Your task to perform on an android device: Add "dell alienware" to the cart on walmart Image 0: 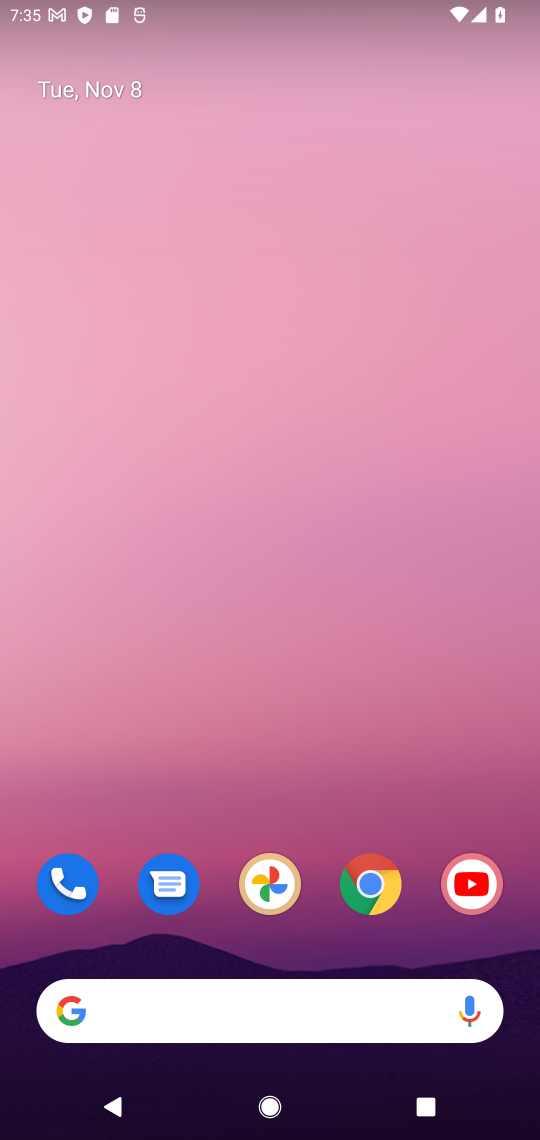
Step 0: drag from (355, 827) to (330, 73)
Your task to perform on an android device: Add "dell alienware" to the cart on walmart Image 1: 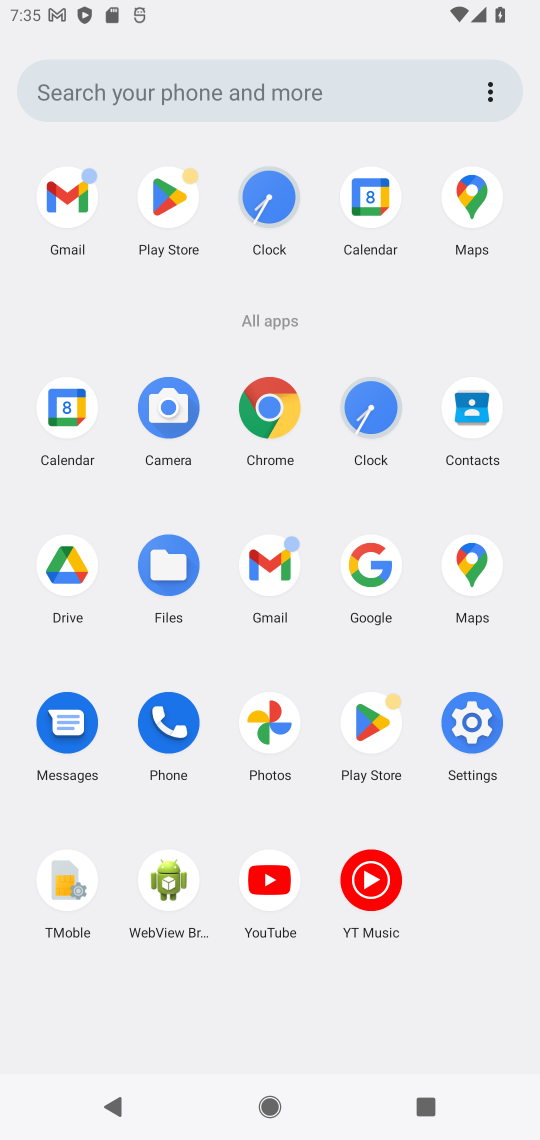
Step 1: click (367, 591)
Your task to perform on an android device: Add "dell alienware" to the cart on walmart Image 2: 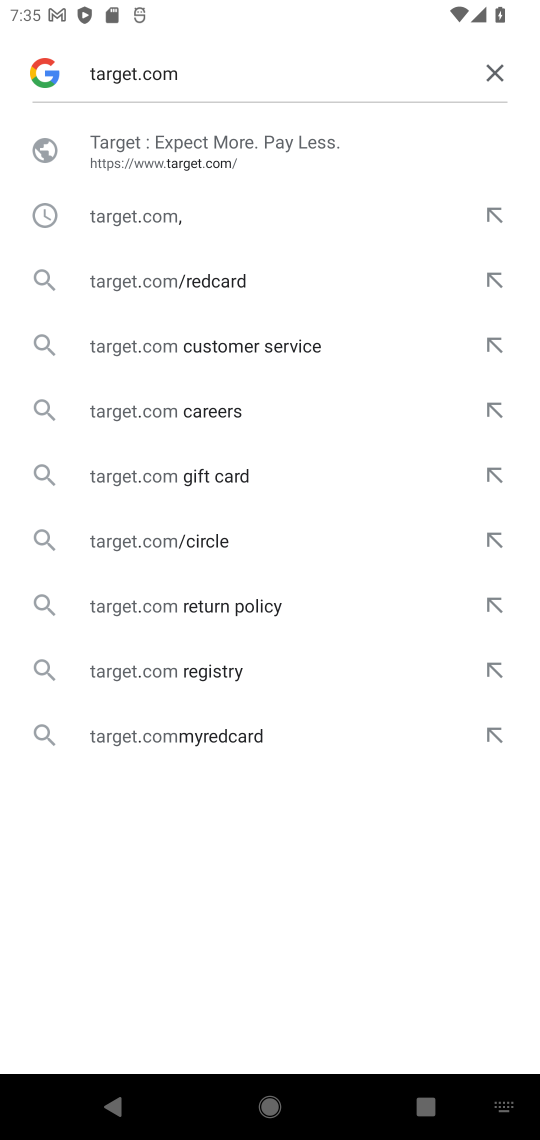
Step 2: click (505, 70)
Your task to perform on an android device: Add "dell alienware" to the cart on walmart Image 3: 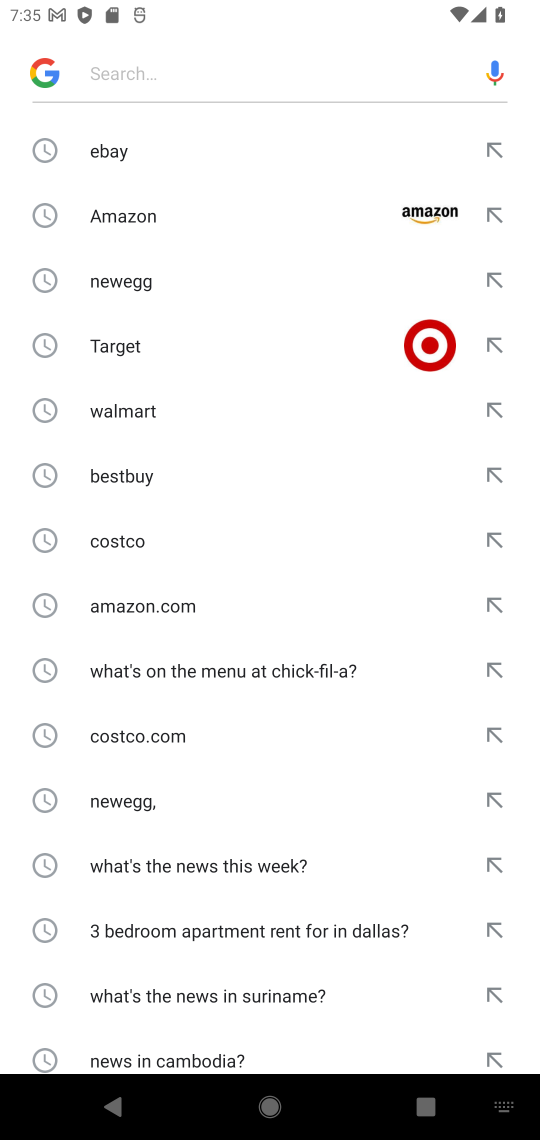
Step 3: click (234, 403)
Your task to perform on an android device: Add "dell alienware" to the cart on walmart Image 4: 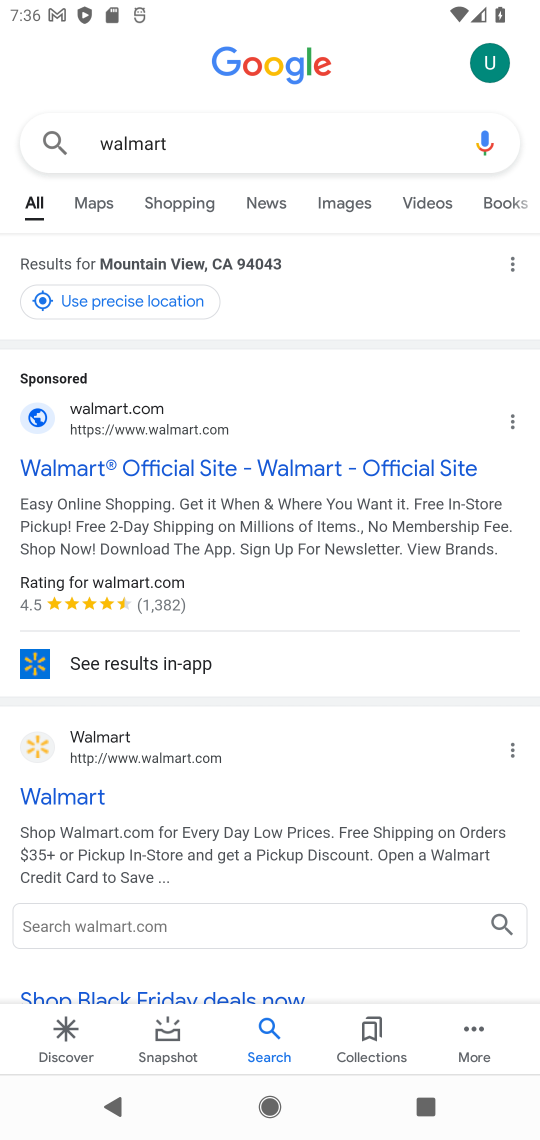
Step 4: click (138, 483)
Your task to perform on an android device: Add "dell alienware" to the cart on walmart Image 5: 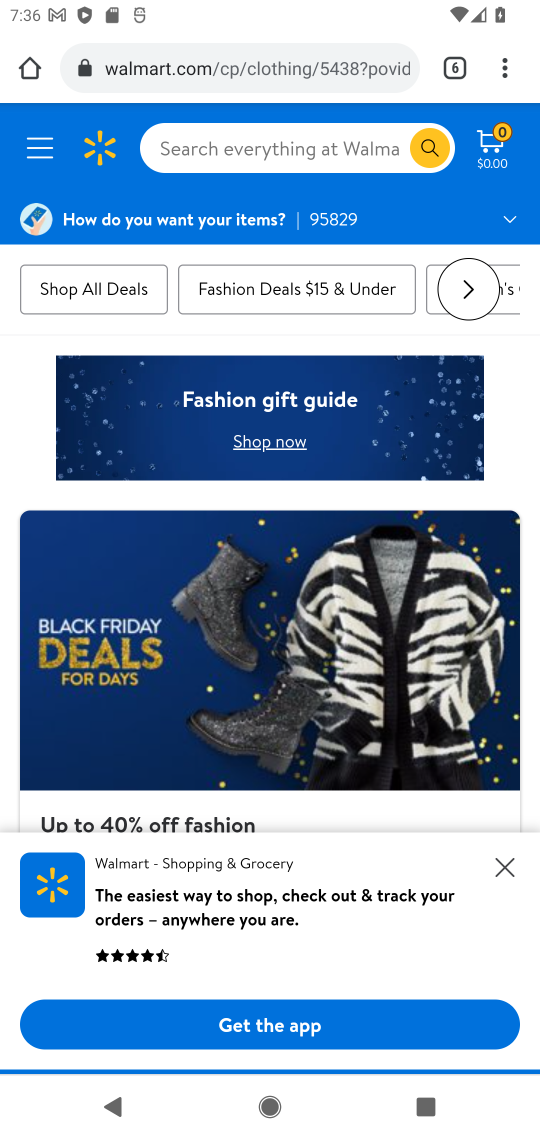
Step 5: click (286, 150)
Your task to perform on an android device: Add "dell alienware" to the cart on walmart Image 6: 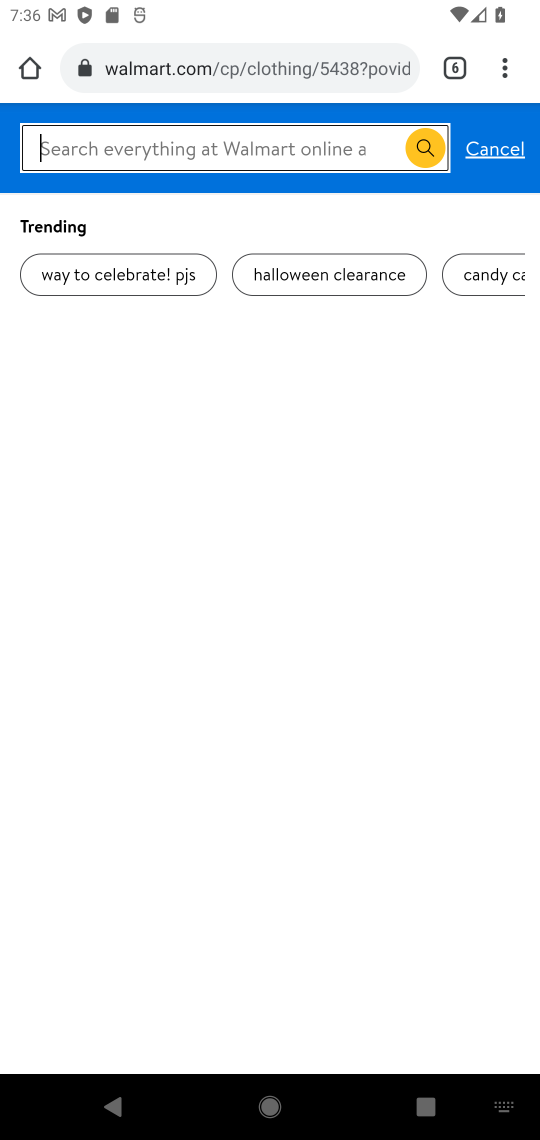
Step 6: type "dell alienware"
Your task to perform on an android device: Add "dell alienware" to the cart on walmart Image 7: 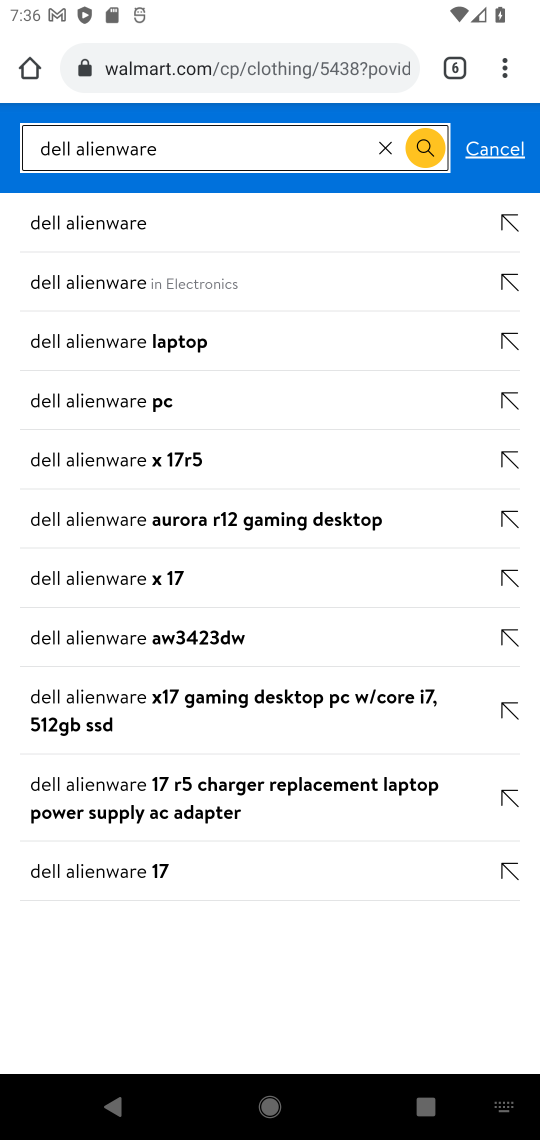
Step 7: click (251, 285)
Your task to perform on an android device: Add "dell alienware" to the cart on walmart Image 8: 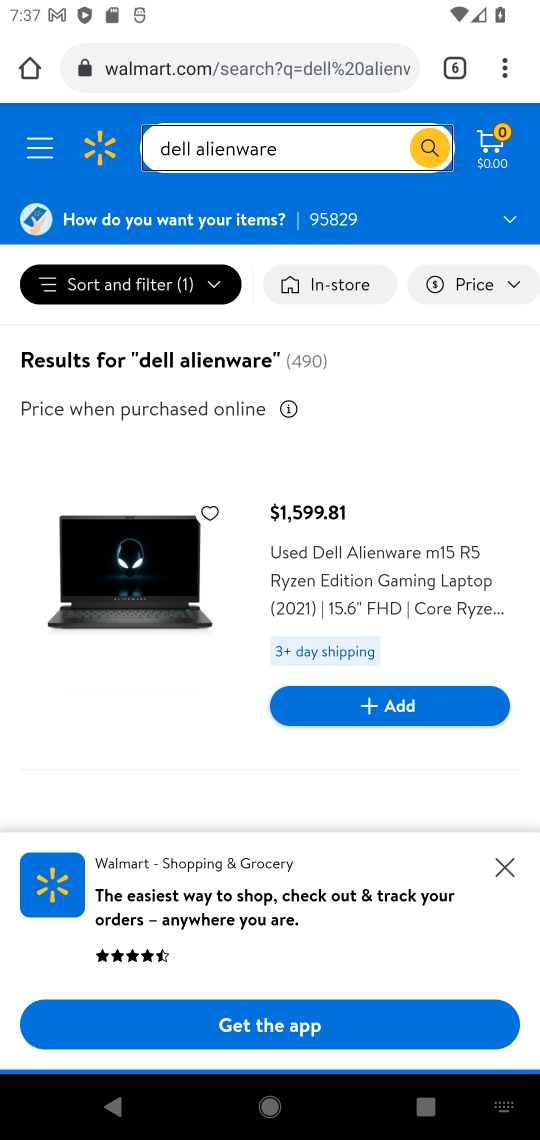
Step 8: click (454, 698)
Your task to perform on an android device: Add "dell alienware" to the cart on walmart Image 9: 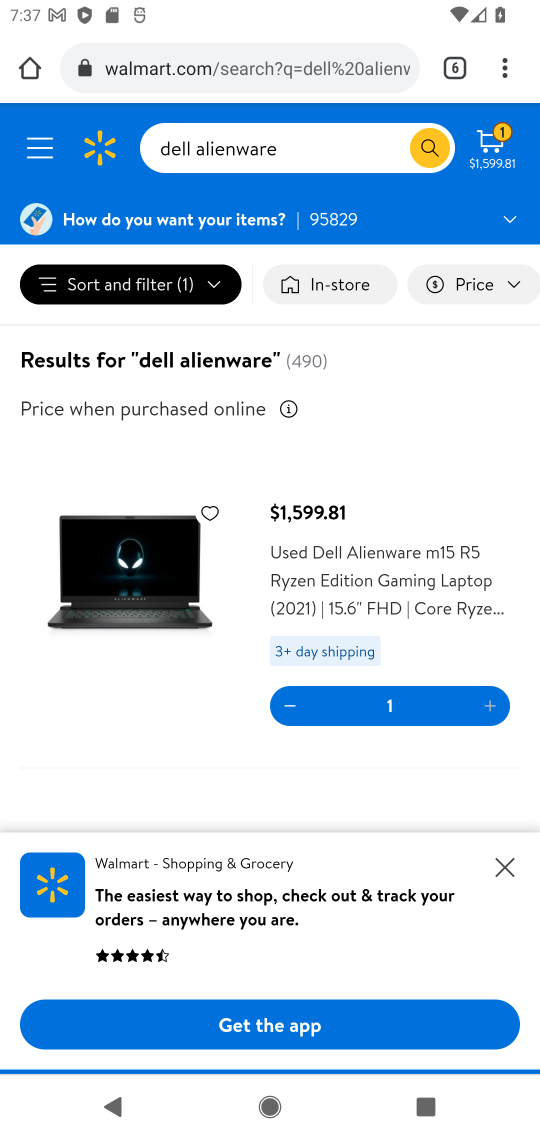
Step 9: task complete